Your task to perform on an android device: change keyboard looks Image 0: 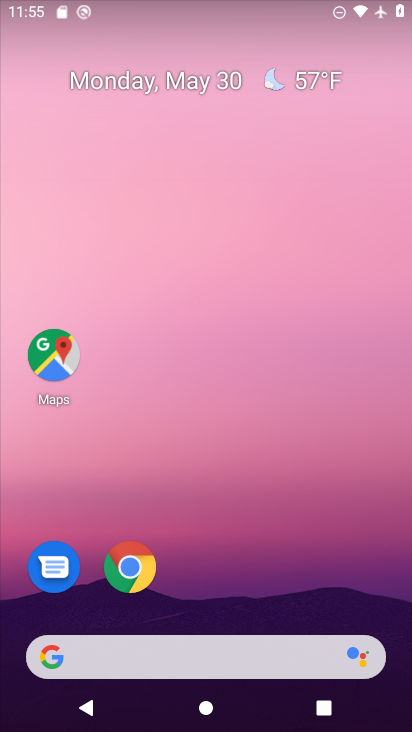
Step 0: drag from (209, 589) to (208, 136)
Your task to perform on an android device: change keyboard looks Image 1: 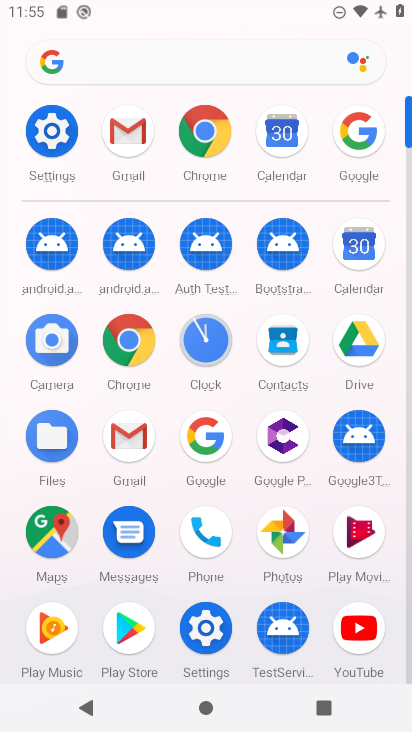
Step 1: click (50, 116)
Your task to perform on an android device: change keyboard looks Image 2: 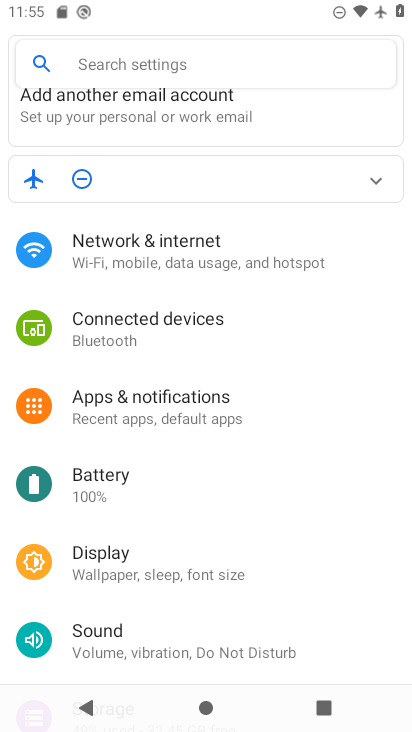
Step 2: drag from (196, 555) to (185, 308)
Your task to perform on an android device: change keyboard looks Image 3: 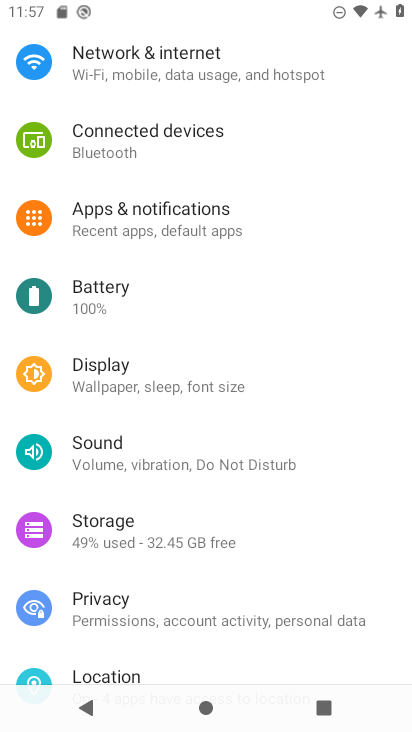
Step 3: drag from (188, 589) to (192, 106)
Your task to perform on an android device: change keyboard looks Image 4: 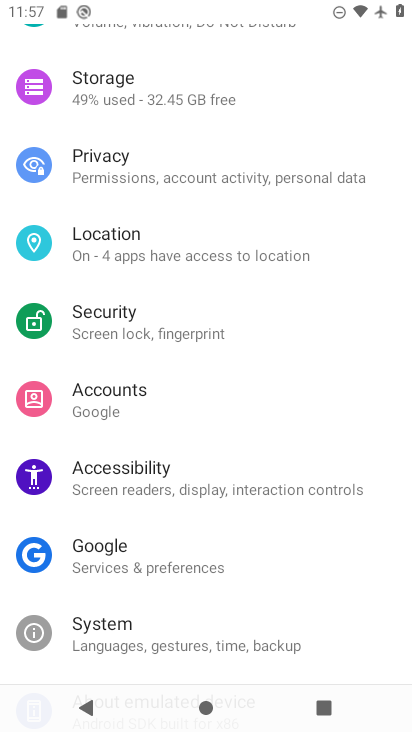
Step 4: drag from (134, 611) to (155, 360)
Your task to perform on an android device: change keyboard looks Image 5: 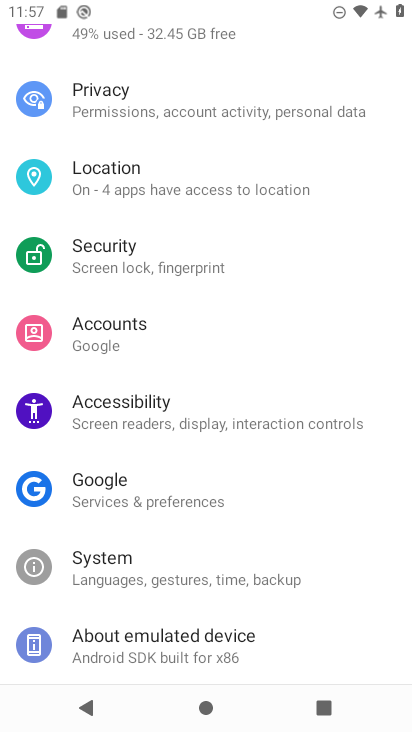
Step 5: click (172, 581)
Your task to perform on an android device: change keyboard looks Image 6: 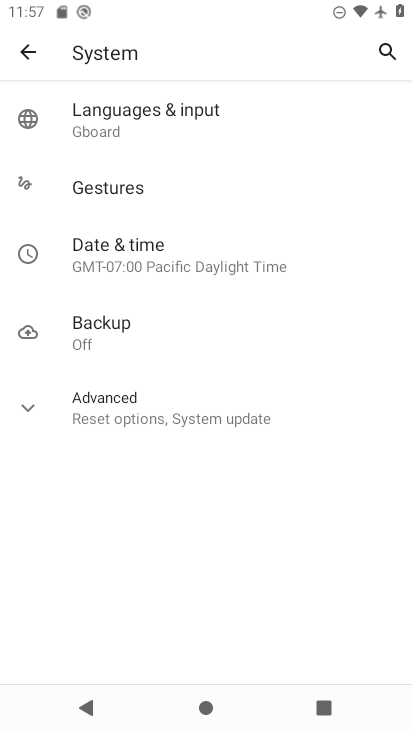
Step 6: click (141, 115)
Your task to perform on an android device: change keyboard looks Image 7: 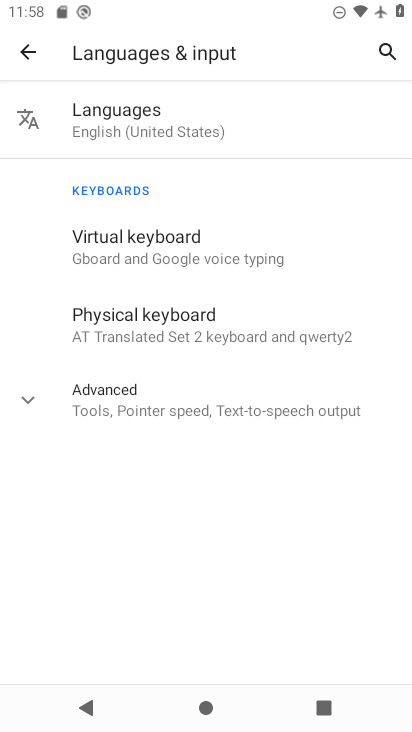
Step 7: click (145, 243)
Your task to perform on an android device: change keyboard looks Image 8: 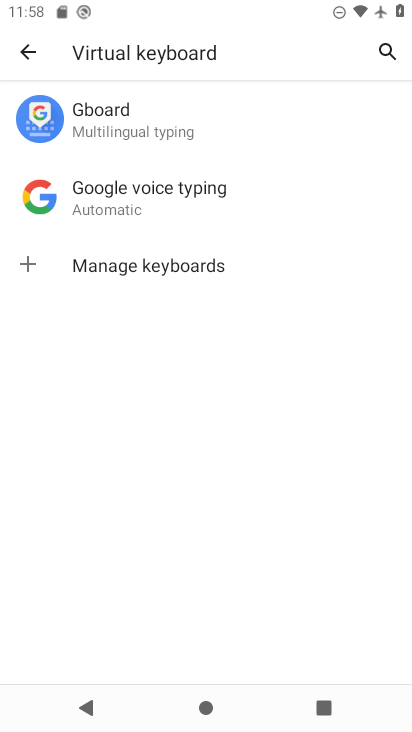
Step 8: click (147, 131)
Your task to perform on an android device: change keyboard looks Image 9: 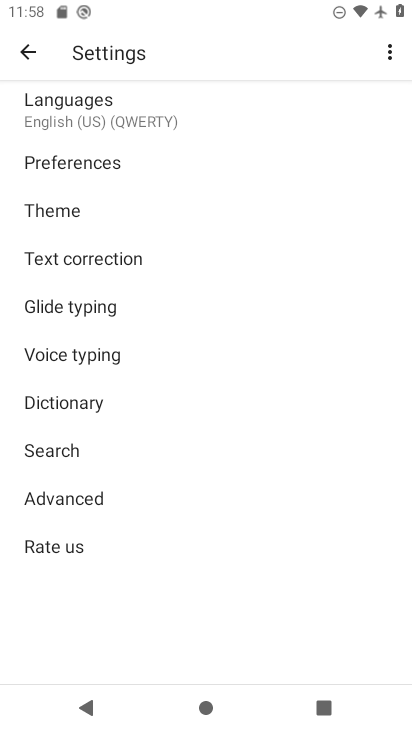
Step 9: click (71, 201)
Your task to perform on an android device: change keyboard looks Image 10: 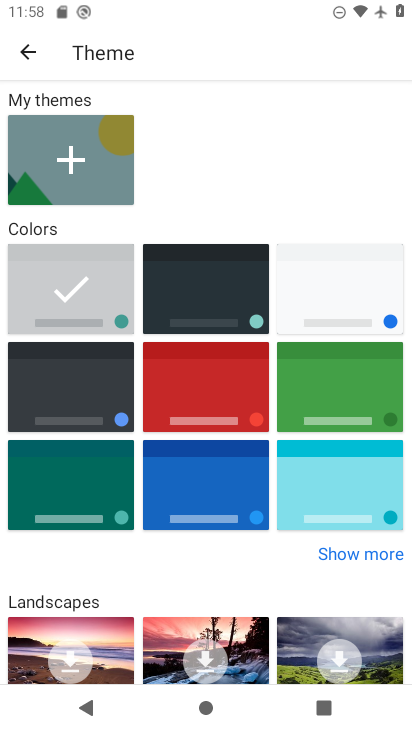
Step 10: click (177, 269)
Your task to perform on an android device: change keyboard looks Image 11: 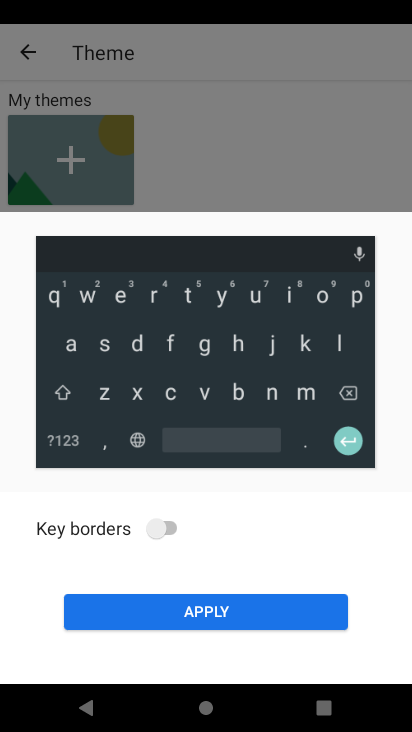
Step 11: click (167, 525)
Your task to perform on an android device: change keyboard looks Image 12: 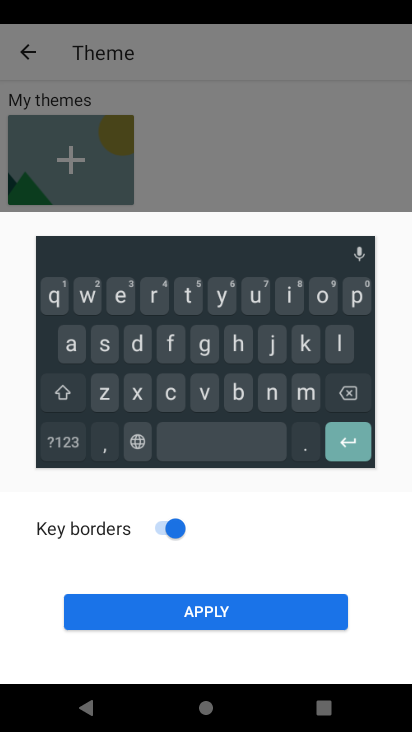
Step 12: click (195, 614)
Your task to perform on an android device: change keyboard looks Image 13: 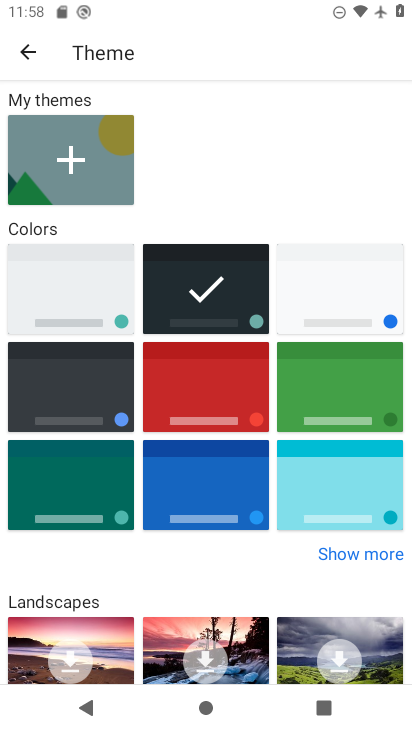
Step 13: task complete